Your task to perform on an android device: Clear the cart on target.com. Add "duracell triple a" to the cart on target.com Image 0: 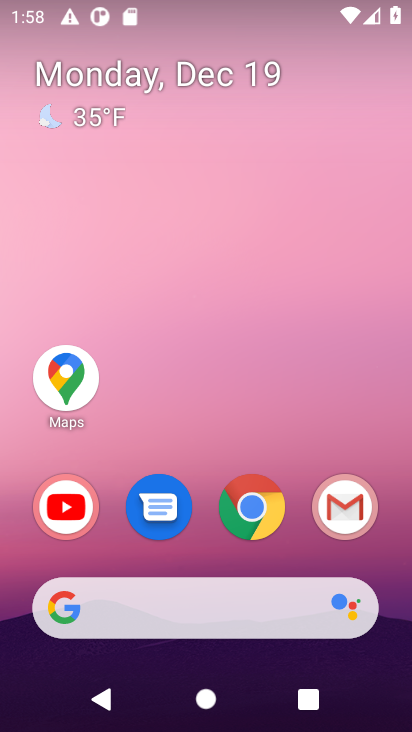
Step 0: click (260, 508)
Your task to perform on an android device: Clear the cart on target.com. Add "duracell triple a" to the cart on target.com Image 1: 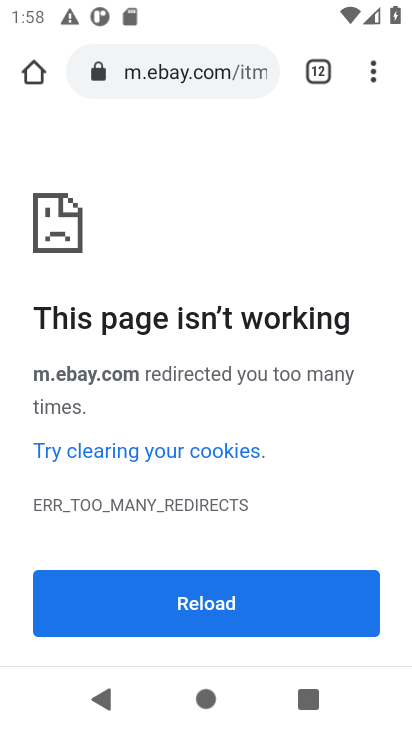
Step 1: click (176, 76)
Your task to perform on an android device: Clear the cart on target.com. Add "duracell triple a" to the cart on target.com Image 2: 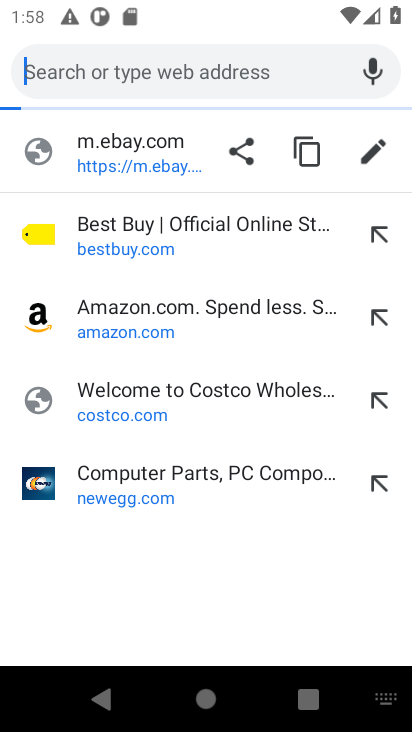
Step 2: type "target.com"
Your task to perform on an android device: Clear the cart on target.com. Add "duracell triple a" to the cart on target.com Image 3: 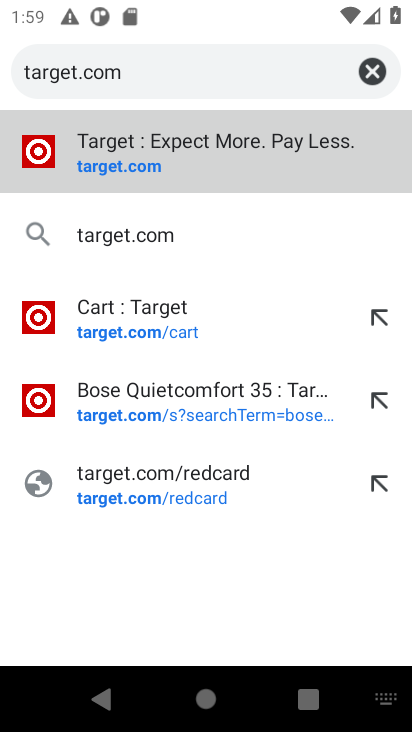
Step 3: click (103, 153)
Your task to perform on an android device: Clear the cart on target.com. Add "duracell triple a" to the cart on target.com Image 4: 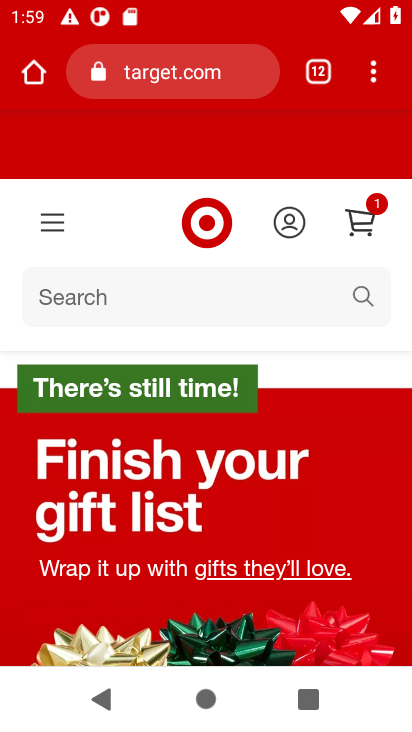
Step 4: click (357, 216)
Your task to perform on an android device: Clear the cart on target.com. Add "duracell triple a" to the cart on target.com Image 5: 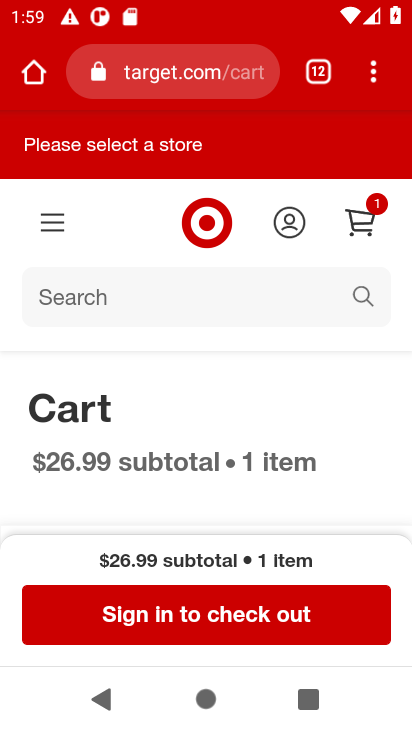
Step 5: drag from (282, 429) to (270, 120)
Your task to perform on an android device: Clear the cart on target.com. Add "duracell triple a" to the cart on target.com Image 6: 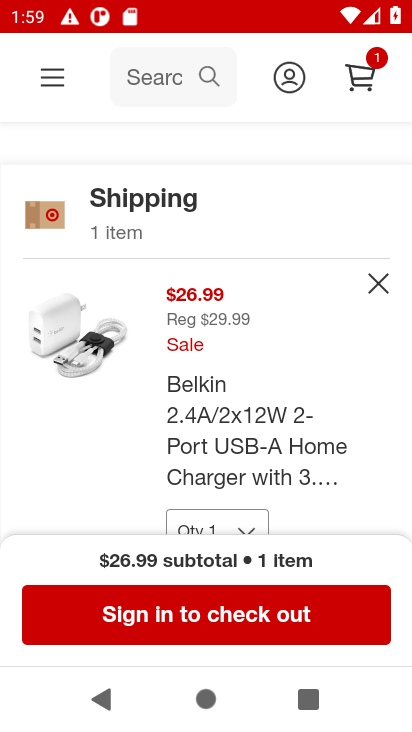
Step 6: click (374, 284)
Your task to perform on an android device: Clear the cart on target.com. Add "duracell triple a" to the cart on target.com Image 7: 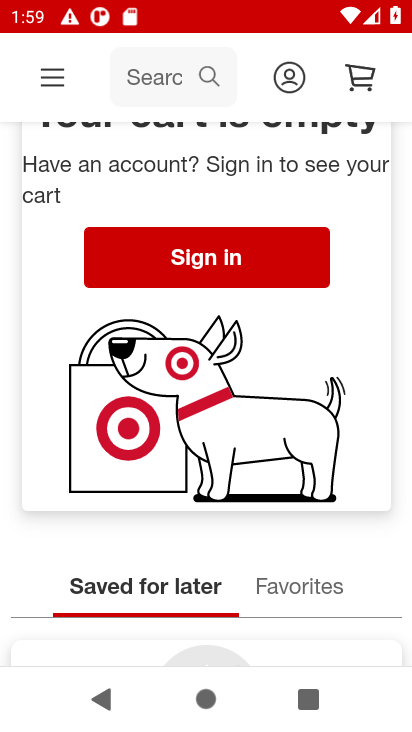
Step 7: drag from (271, 357) to (251, 645)
Your task to perform on an android device: Clear the cart on target.com. Add "duracell triple a" to the cart on target.com Image 8: 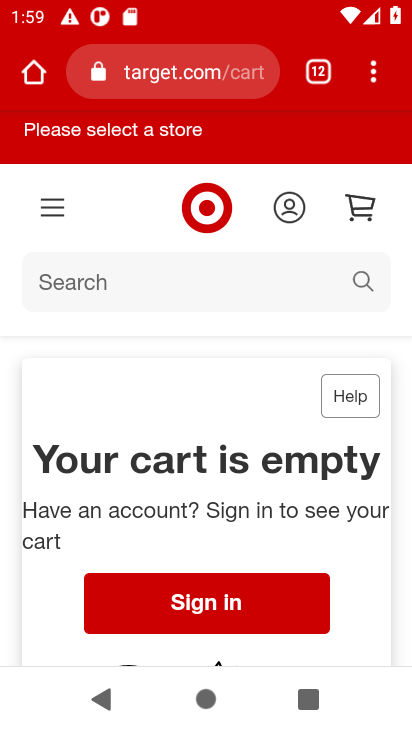
Step 8: click (58, 283)
Your task to perform on an android device: Clear the cart on target.com. Add "duracell triple a" to the cart on target.com Image 9: 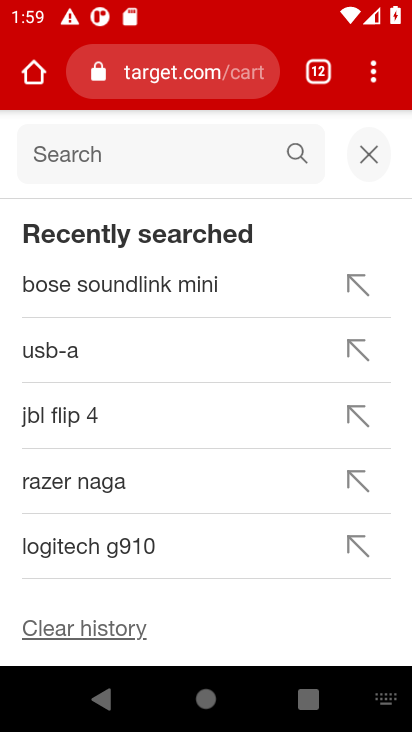
Step 9: type "duracell triple a"
Your task to perform on an android device: Clear the cart on target.com. Add "duracell triple a" to the cart on target.com Image 10: 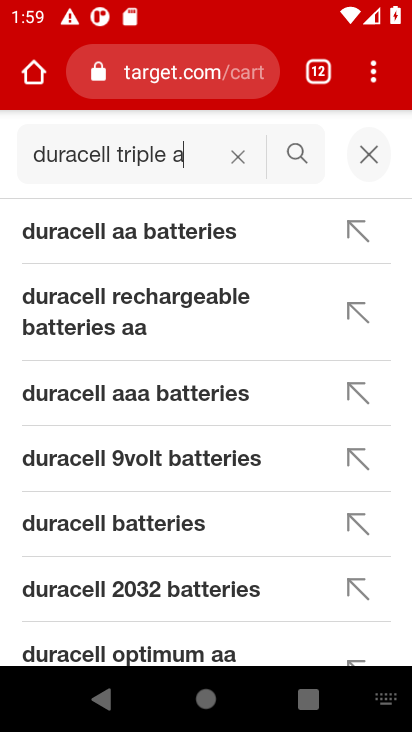
Step 10: click (298, 146)
Your task to perform on an android device: Clear the cart on target.com. Add "duracell triple a" to the cart on target.com Image 11: 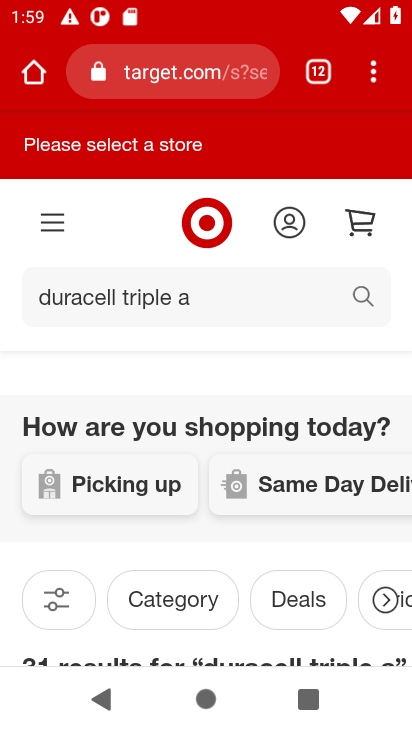
Step 11: drag from (193, 452) to (177, 264)
Your task to perform on an android device: Clear the cart on target.com. Add "duracell triple a" to the cart on target.com Image 12: 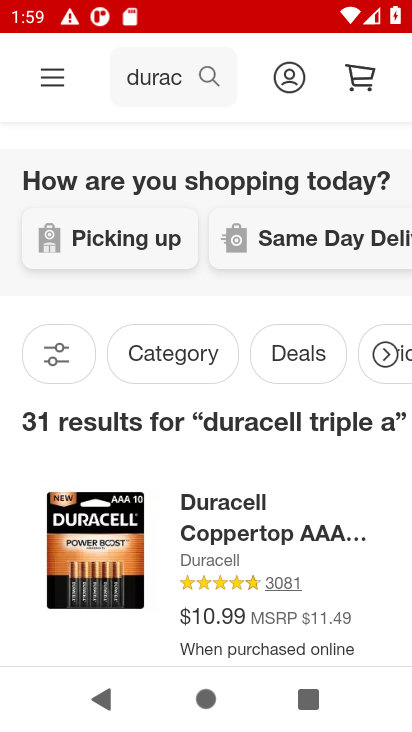
Step 12: drag from (203, 465) to (198, 289)
Your task to perform on an android device: Clear the cart on target.com. Add "duracell triple a" to the cart on target.com Image 13: 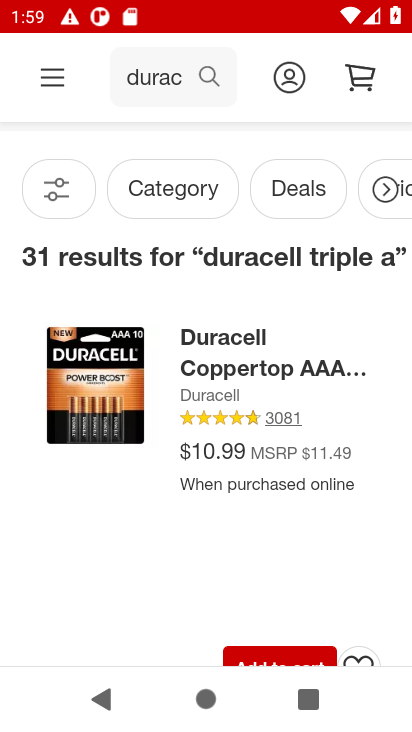
Step 13: drag from (220, 433) to (225, 343)
Your task to perform on an android device: Clear the cart on target.com. Add "duracell triple a" to the cart on target.com Image 14: 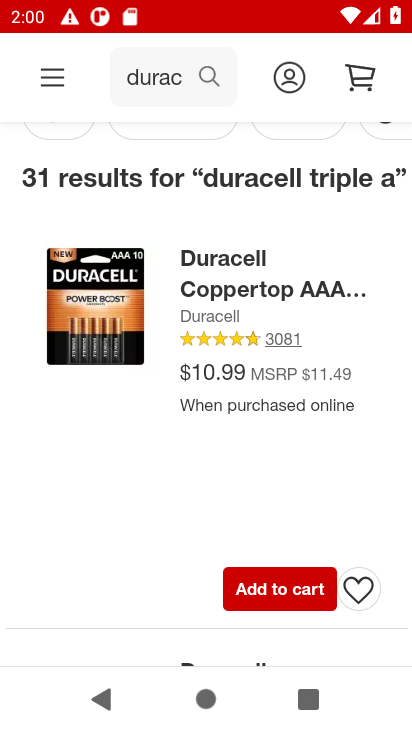
Step 14: click (270, 594)
Your task to perform on an android device: Clear the cart on target.com. Add "duracell triple a" to the cart on target.com Image 15: 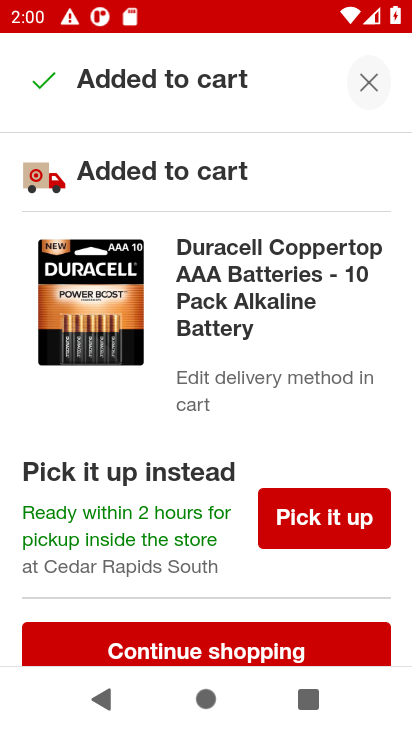
Step 15: task complete